Your task to perform on an android device: turn on priority inbox in the gmail app Image 0: 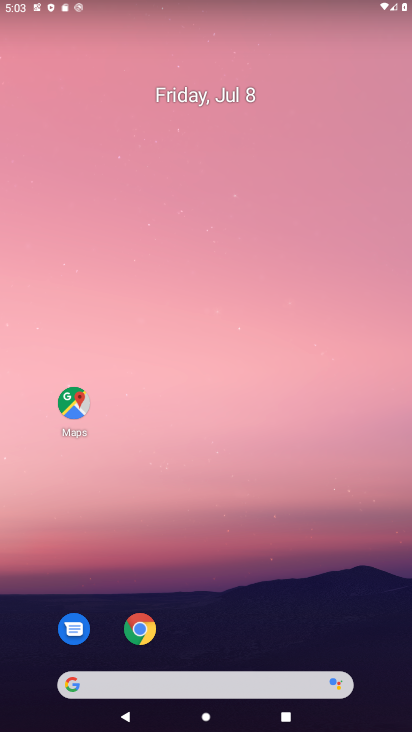
Step 0: drag from (213, 491) to (203, 67)
Your task to perform on an android device: turn on priority inbox in the gmail app Image 1: 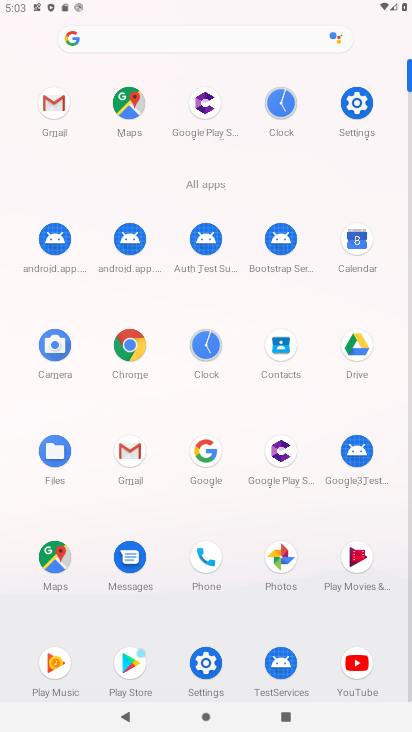
Step 1: click (124, 452)
Your task to perform on an android device: turn on priority inbox in the gmail app Image 2: 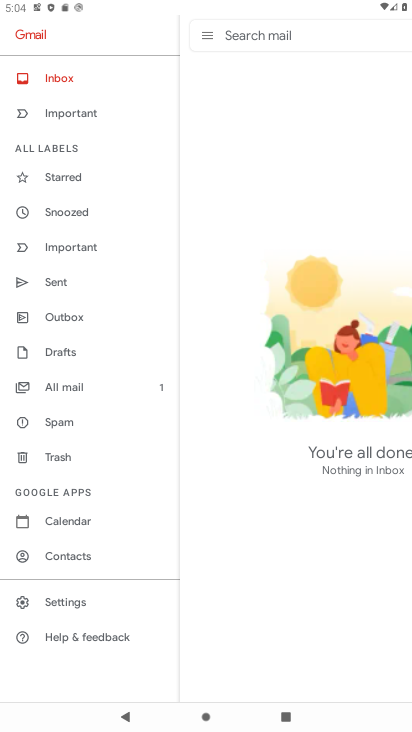
Step 2: click (64, 605)
Your task to perform on an android device: turn on priority inbox in the gmail app Image 3: 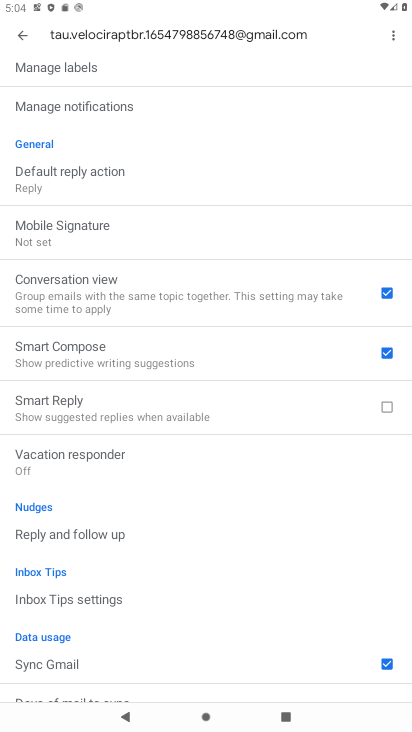
Step 3: drag from (220, 122) to (274, 723)
Your task to perform on an android device: turn on priority inbox in the gmail app Image 4: 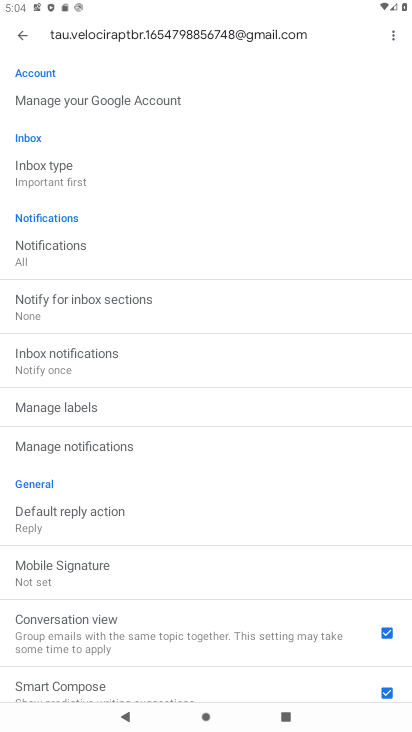
Step 4: click (43, 173)
Your task to perform on an android device: turn on priority inbox in the gmail app Image 5: 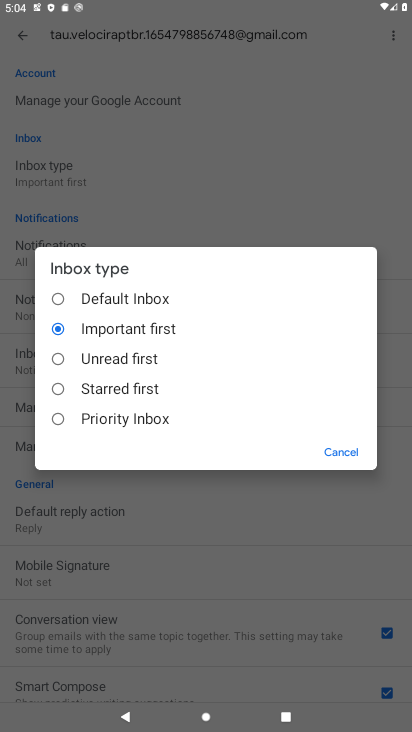
Step 5: click (59, 419)
Your task to perform on an android device: turn on priority inbox in the gmail app Image 6: 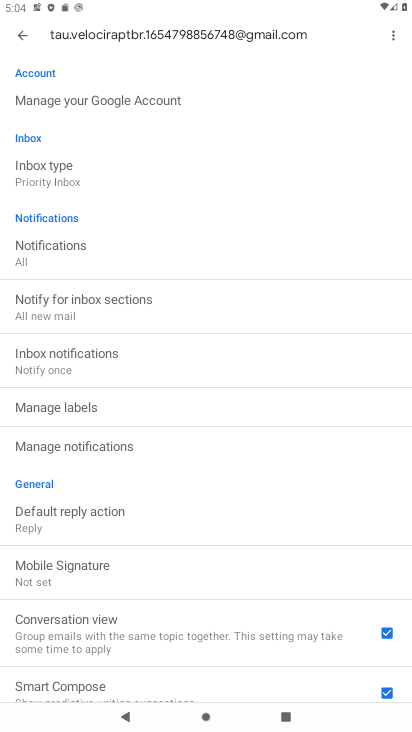
Step 6: task complete